Your task to perform on an android device: Open the Play Movies app and select the watchlist tab. Image 0: 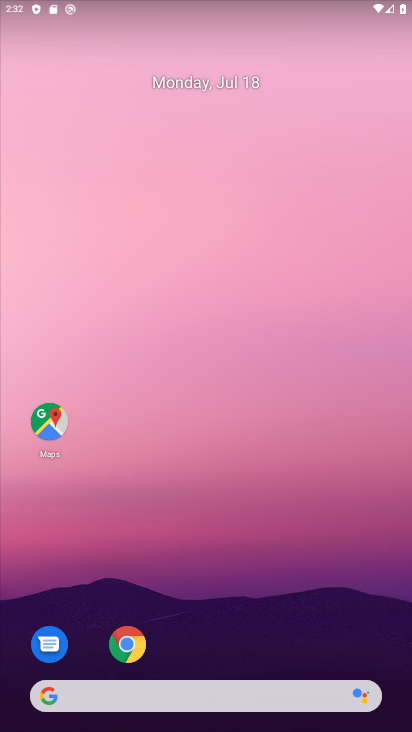
Step 0: drag from (217, 693) to (204, 326)
Your task to perform on an android device: Open the Play Movies app and select the watchlist tab. Image 1: 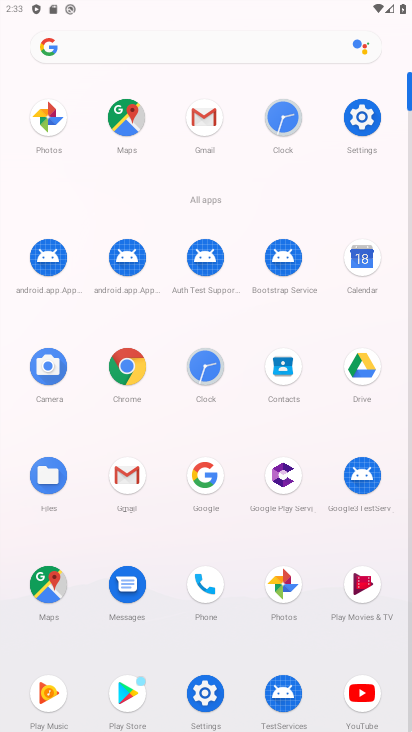
Step 1: click (342, 598)
Your task to perform on an android device: Open the Play Movies app and select the watchlist tab. Image 2: 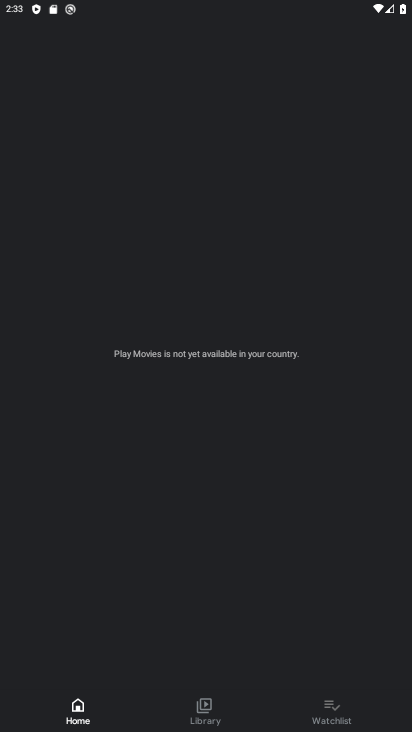
Step 2: click (325, 709)
Your task to perform on an android device: Open the Play Movies app and select the watchlist tab. Image 3: 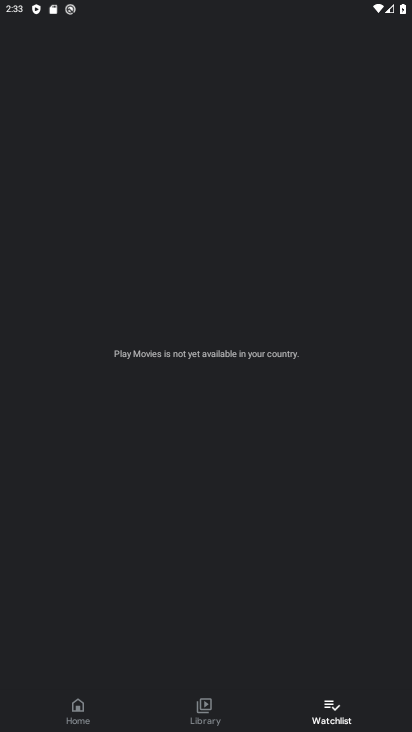
Step 3: task complete